Your task to perform on an android device: Check the weather Image 0: 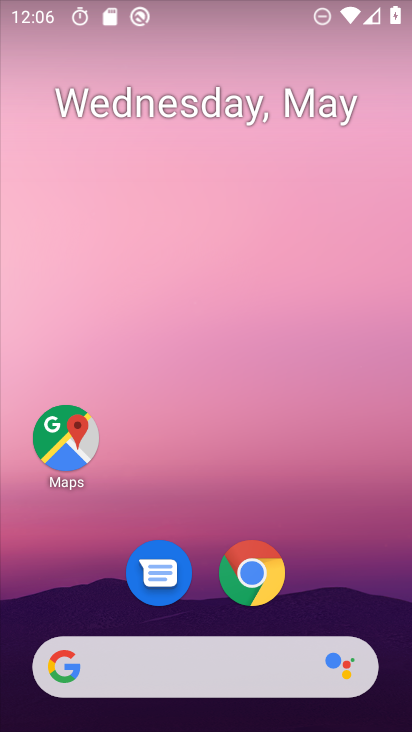
Step 0: drag from (339, 505) to (268, 13)
Your task to perform on an android device: Check the weather Image 1: 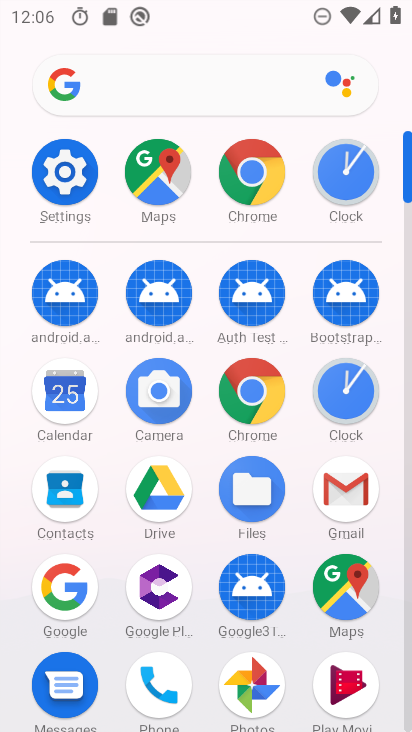
Step 1: drag from (20, 527) to (39, 227)
Your task to perform on an android device: Check the weather Image 2: 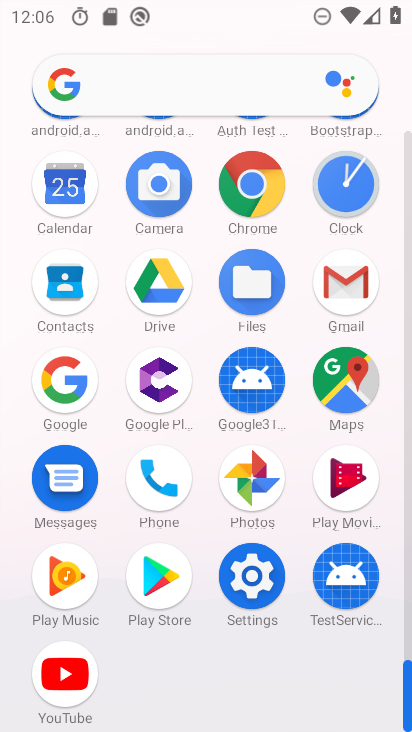
Step 2: click (248, 180)
Your task to perform on an android device: Check the weather Image 3: 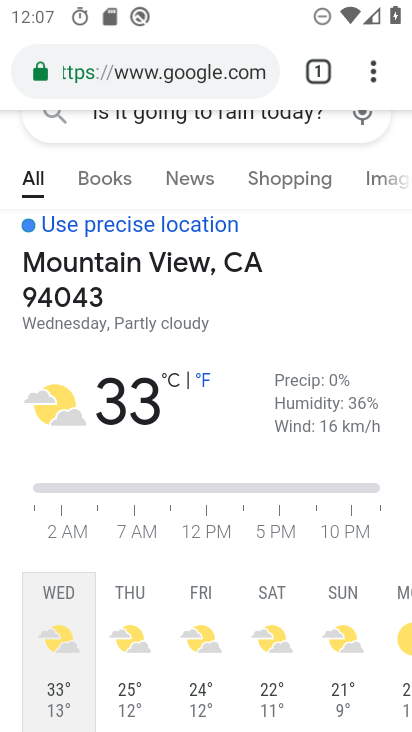
Step 3: task complete